Your task to perform on an android device: turn off improve location accuracy Image 0: 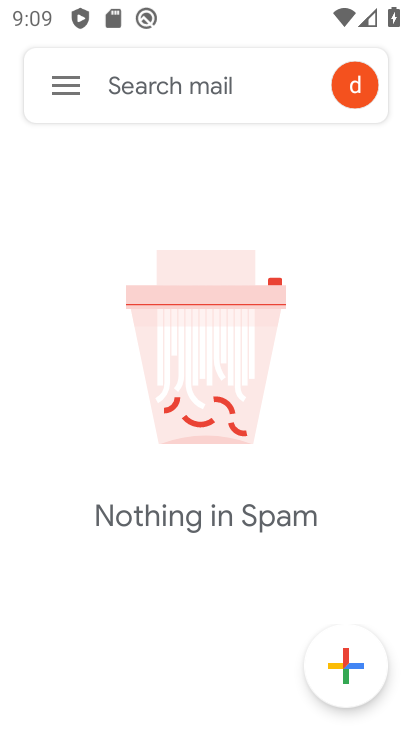
Step 0: press home button
Your task to perform on an android device: turn off improve location accuracy Image 1: 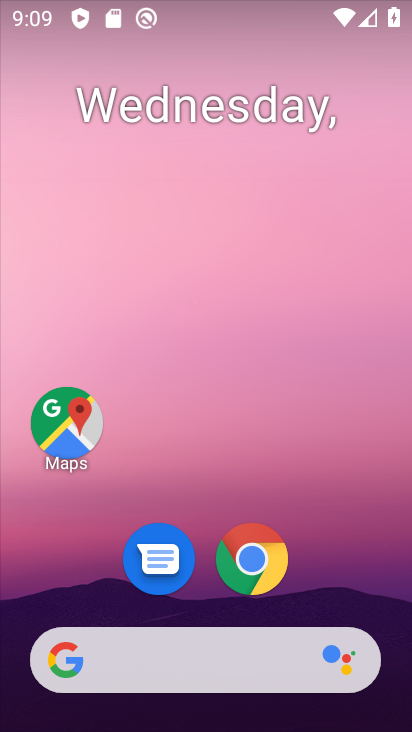
Step 1: drag from (335, 510) to (311, 132)
Your task to perform on an android device: turn off improve location accuracy Image 2: 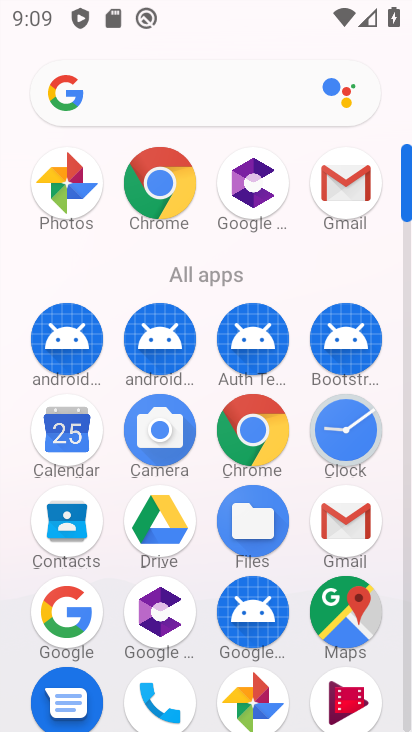
Step 2: drag from (117, 581) to (141, 287)
Your task to perform on an android device: turn off improve location accuracy Image 3: 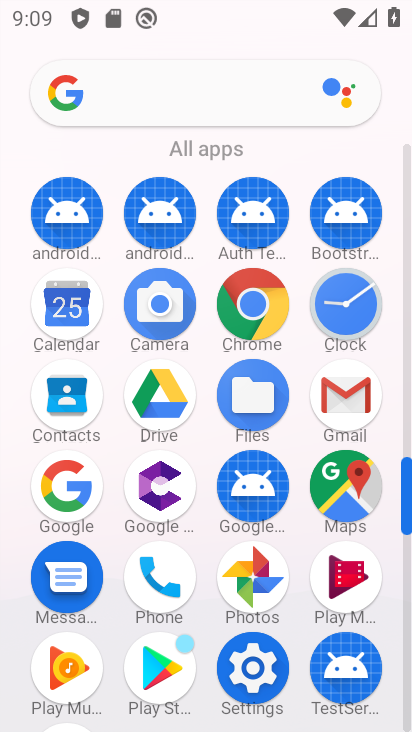
Step 3: click (247, 659)
Your task to perform on an android device: turn off improve location accuracy Image 4: 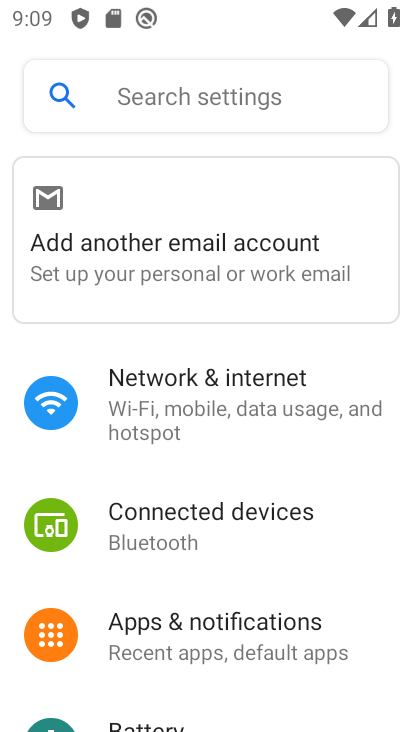
Step 4: drag from (293, 603) to (281, 350)
Your task to perform on an android device: turn off improve location accuracy Image 5: 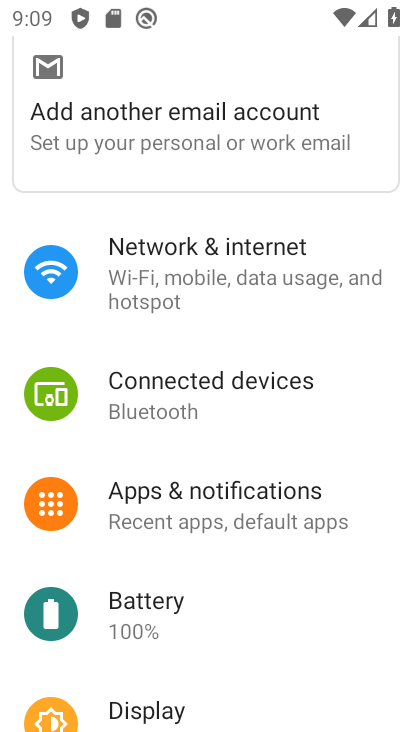
Step 5: drag from (258, 590) to (247, 269)
Your task to perform on an android device: turn off improve location accuracy Image 6: 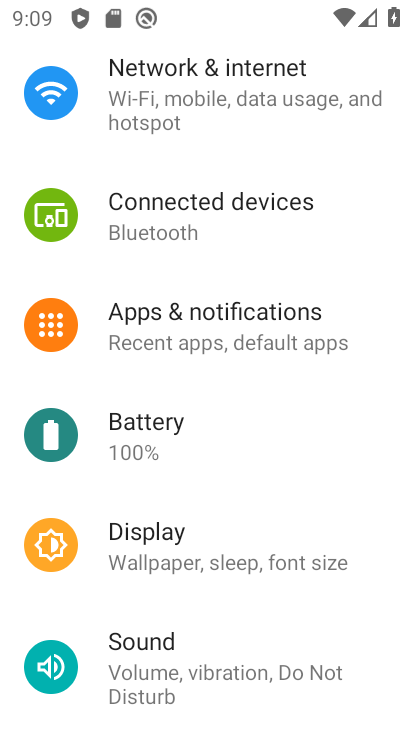
Step 6: drag from (246, 609) to (262, 341)
Your task to perform on an android device: turn off improve location accuracy Image 7: 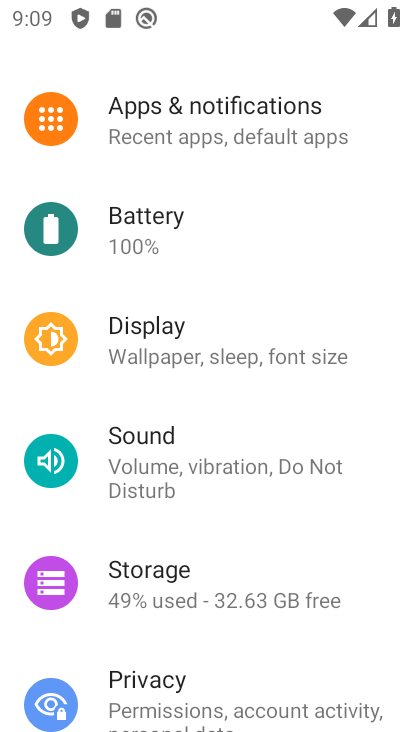
Step 7: drag from (245, 635) to (235, 478)
Your task to perform on an android device: turn off improve location accuracy Image 8: 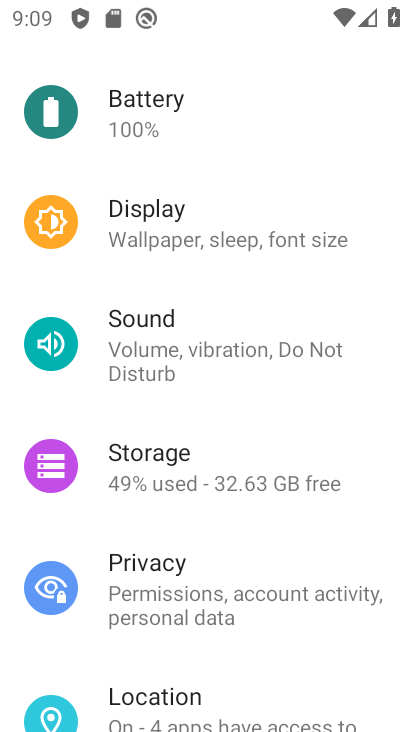
Step 8: drag from (264, 653) to (234, 258)
Your task to perform on an android device: turn off improve location accuracy Image 9: 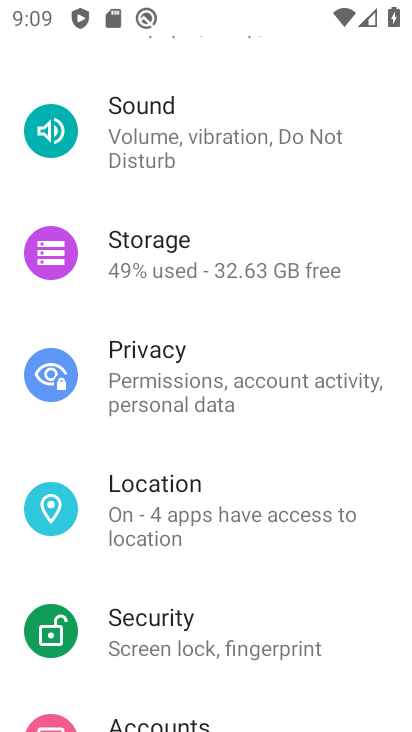
Step 9: click (163, 515)
Your task to perform on an android device: turn off improve location accuracy Image 10: 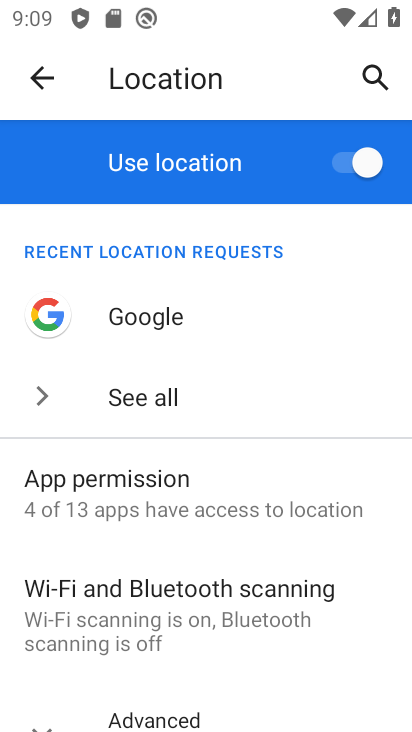
Step 10: drag from (218, 563) to (254, 329)
Your task to perform on an android device: turn off improve location accuracy Image 11: 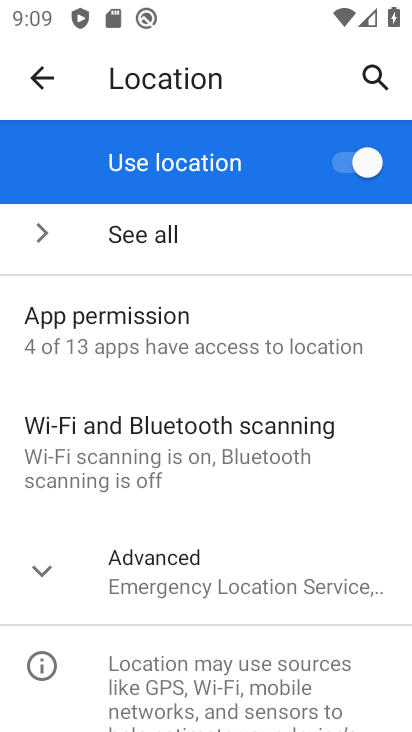
Step 11: click (219, 568)
Your task to perform on an android device: turn off improve location accuracy Image 12: 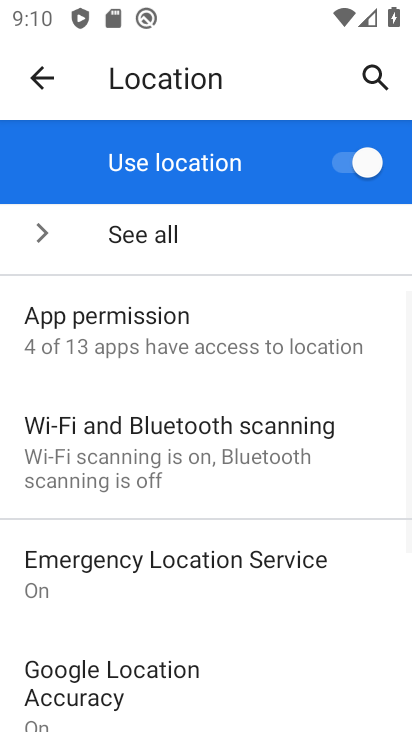
Step 12: drag from (264, 642) to (316, 272)
Your task to perform on an android device: turn off improve location accuracy Image 13: 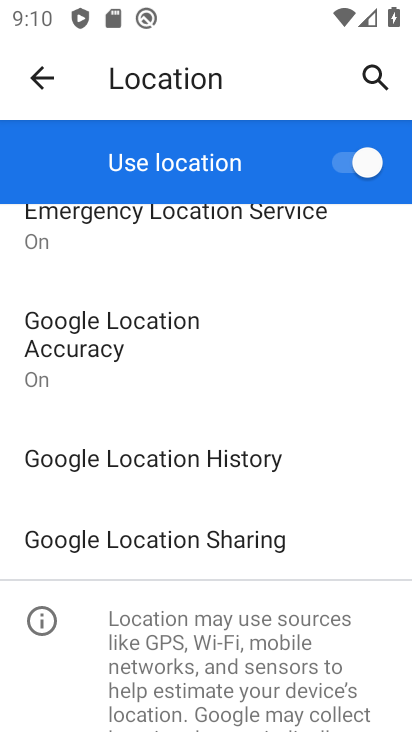
Step 13: click (163, 340)
Your task to perform on an android device: turn off improve location accuracy Image 14: 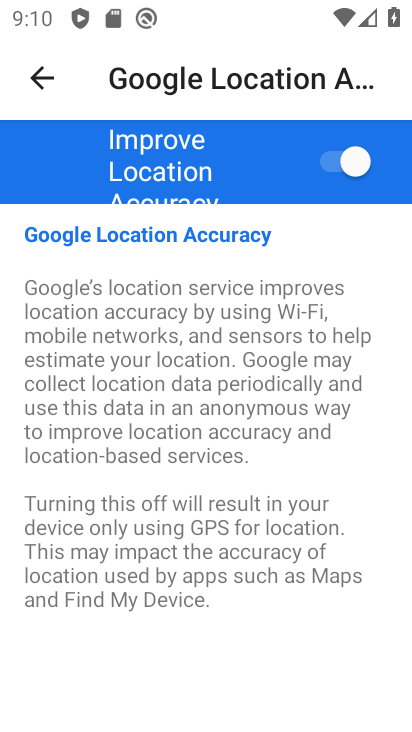
Step 14: click (333, 157)
Your task to perform on an android device: turn off improve location accuracy Image 15: 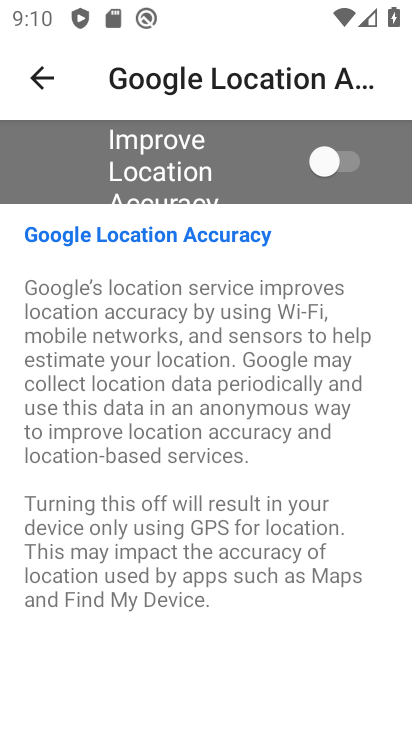
Step 15: task complete